Your task to perform on an android device: toggle data saver in the chrome app Image 0: 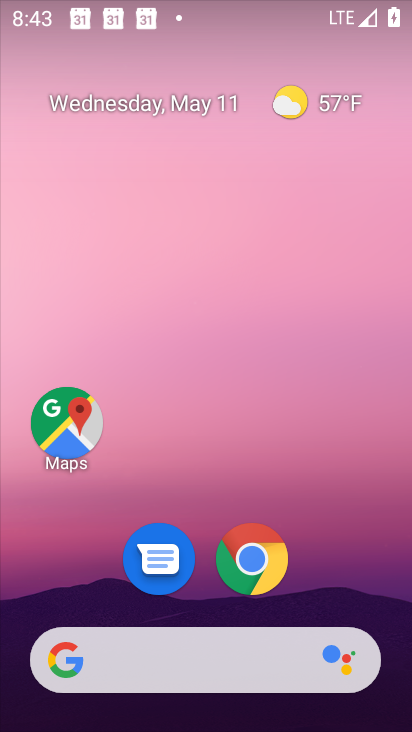
Step 0: click (243, 557)
Your task to perform on an android device: toggle data saver in the chrome app Image 1: 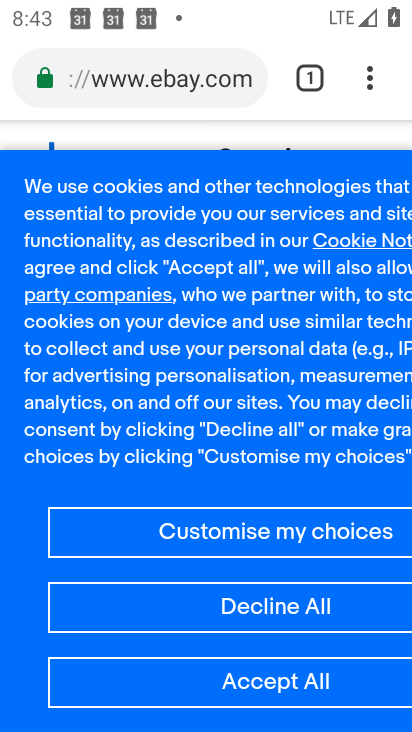
Step 1: click (368, 92)
Your task to perform on an android device: toggle data saver in the chrome app Image 2: 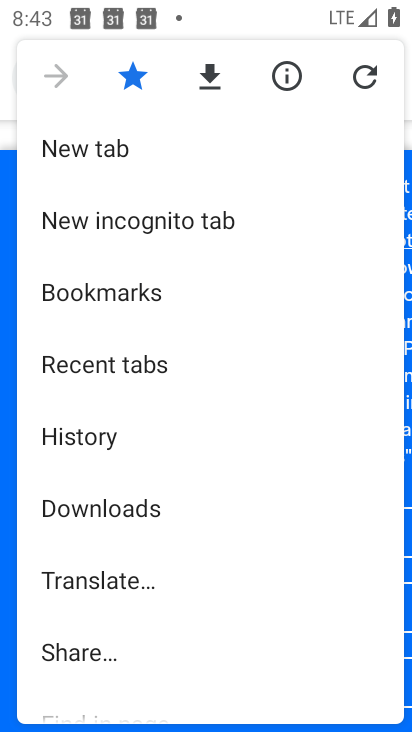
Step 2: drag from (220, 628) to (203, 365)
Your task to perform on an android device: toggle data saver in the chrome app Image 3: 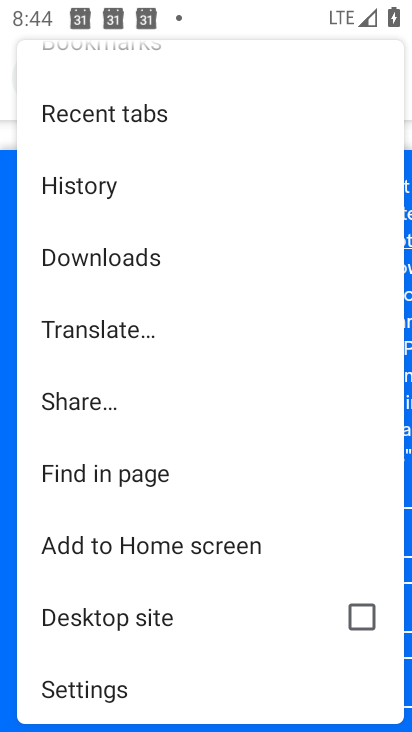
Step 3: click (147, 710)
Your task to perform on an android device: toggle data saver in the chrome app Image 4: 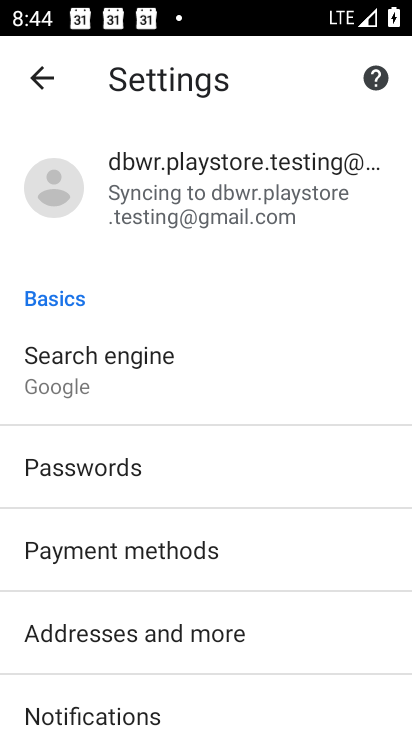
Step 4: drag from (155, 668) to (169, 162)
Your task to perform on an android device: toggle data saver in the chrome app Image 5: 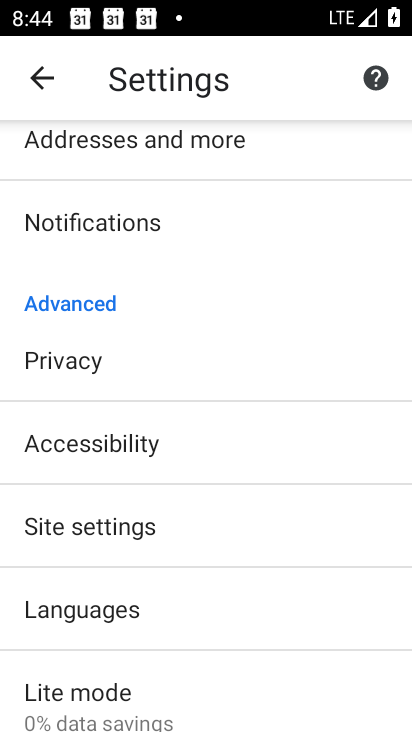
Step 5: click (72, 675)
Your task to perform on an android device: toggle data saver in the chrome app Image 6: 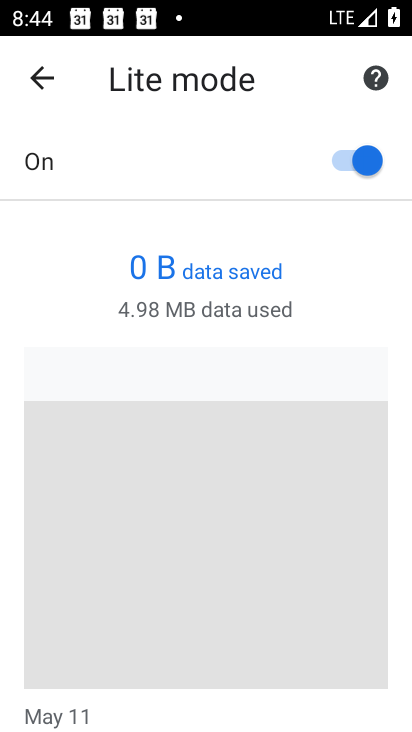
Step 6: click (342, 152)
Your task to perform on an android device: toggle data saver in the chrome app Image 7: 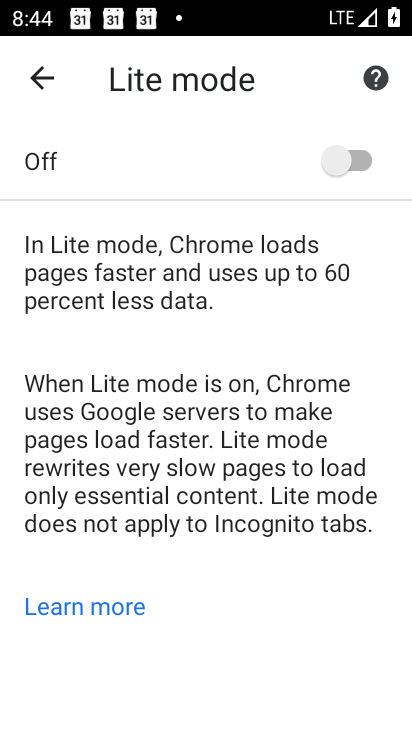
Step 7: task complete